Your task to perform on an android device: What's the weather? Image 0: 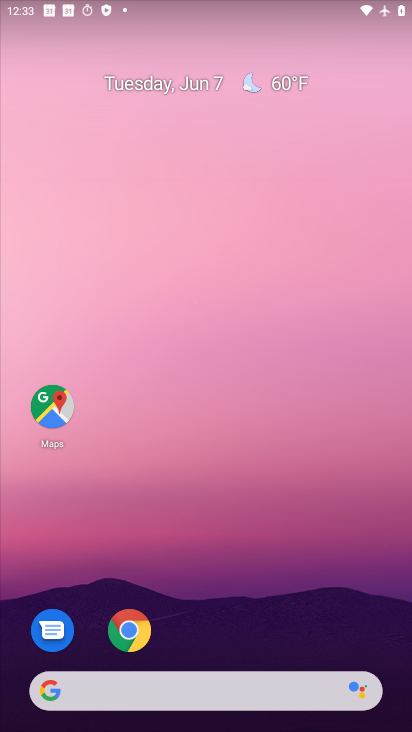
Step 0: drag from (364, 657) to (216, 49)
Your task to perform on an android device: What's the weather? Image 1: 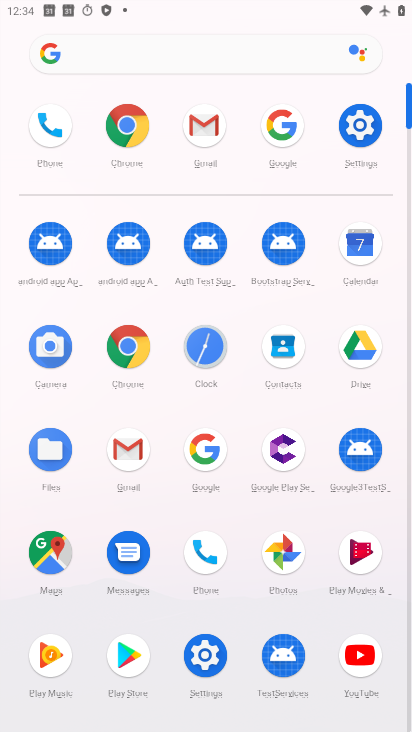
Step 1: click (224, 454)
Your task to perform on an android device: What's the weather? Image 2: 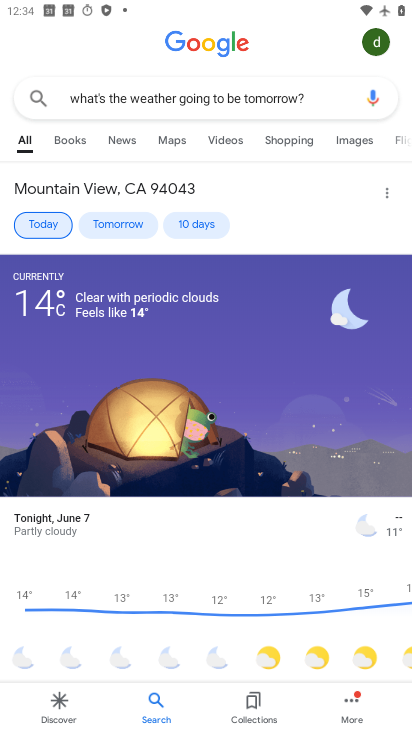
Step 2: press back button
Your task to perform on an android device: What's the weather? Image 3: 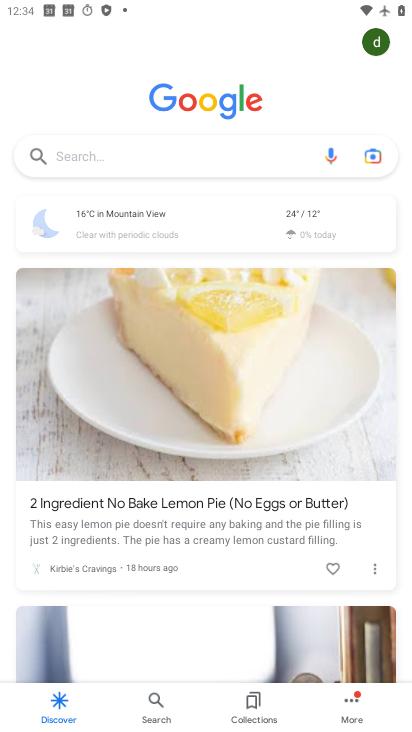
Step 3: click (99, 154)
Your task to perform on an android device: What's the weather? Image 4: 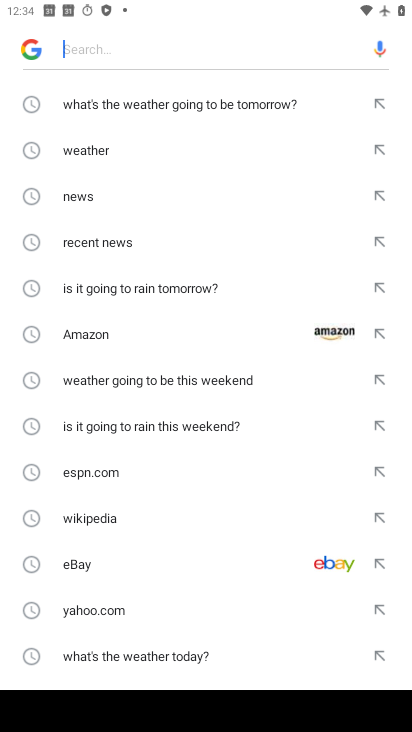
Step 4: click (131, 139)
Your task to perform on an android device: What's the weather? Image 5: 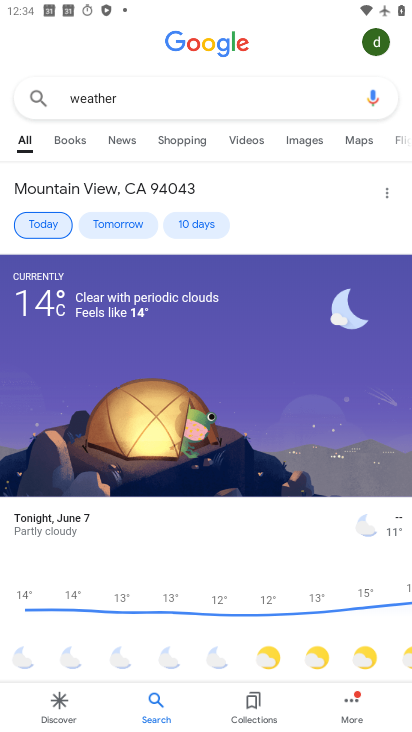
Step 5: task complete